Your task to perform on an android device: toggle sleep mode Image 0: 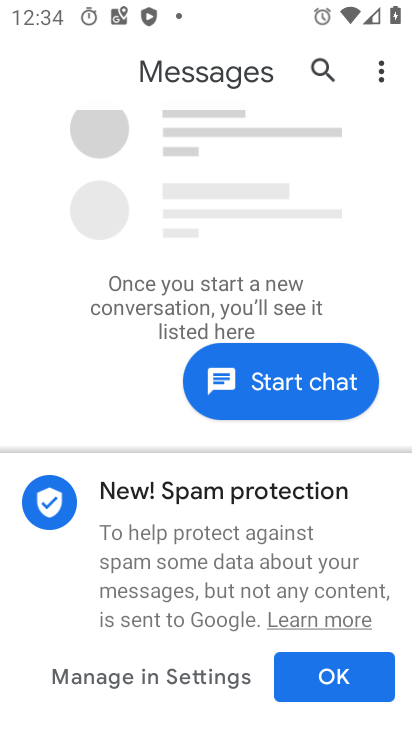
Step 0: press home button
Your task to perform on an android device: toggle sleep mode Image 1: 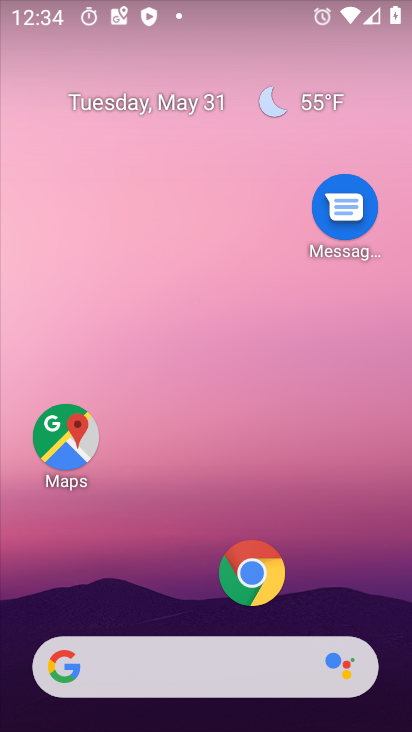
Step 1: drag from (179, 572) to (211, 20)
Your task to perform on an android device: toggle sleep mode Image 2: 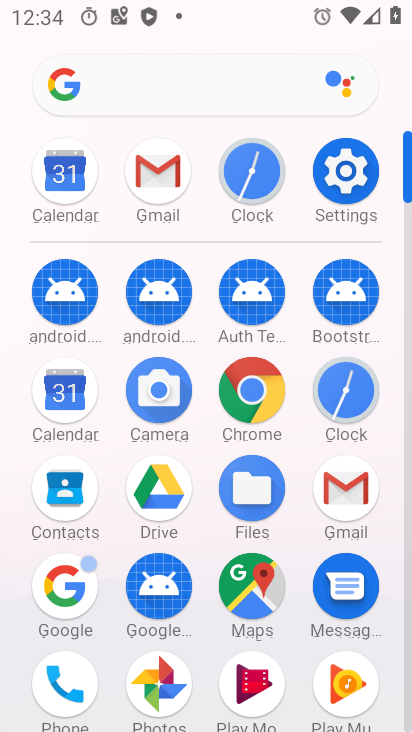
Step 2: click (346, 169)
Your task to perform on an android device: toggle sleep mode Image 3: 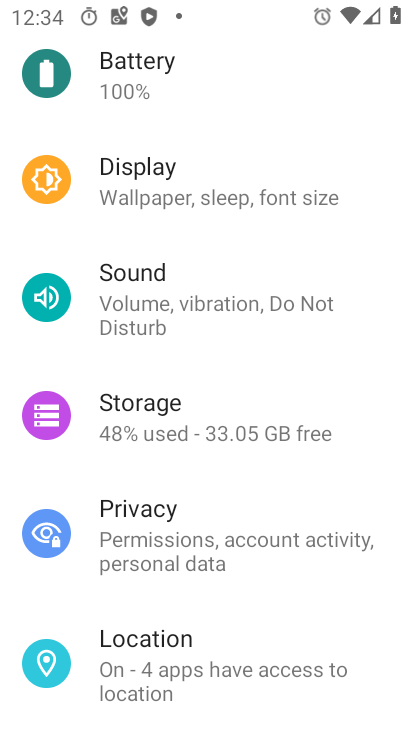
Step 3: drag from (199, 466) to (276, 168)
Your task to perform on an android device: toggle sleep mode Image 4: 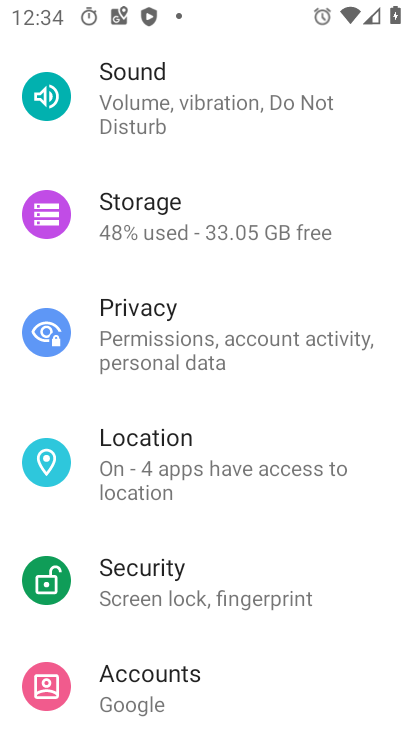
Step 4: drag from (289, 529) to (301, 160)
Your task to perform on an android device: toggle sleep mode Image 5: 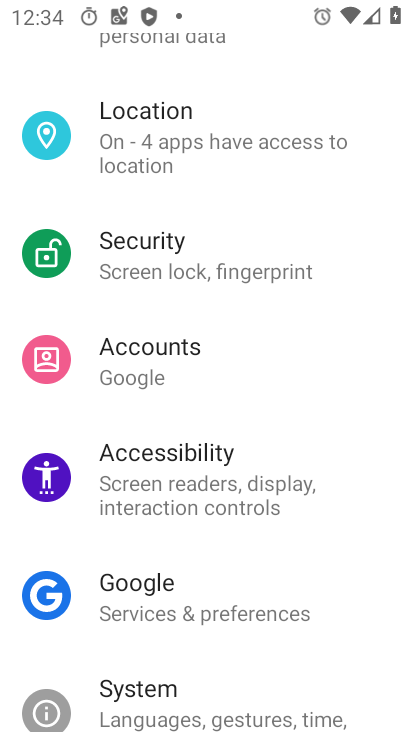
Step 5: drag from (261, 470) to (255, 151)
Your task to perform on an android device: toggle sleep mode Image 6: 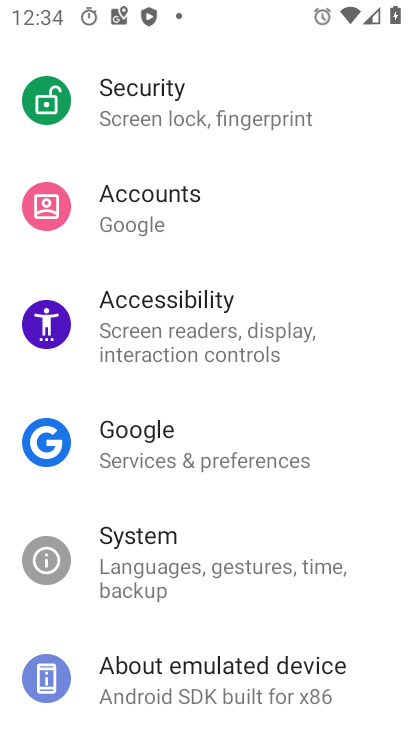
Step 6: drag from (215, 268) to (192, 637)
Your task to perform on an android device: toggle sleep mode Image 7: 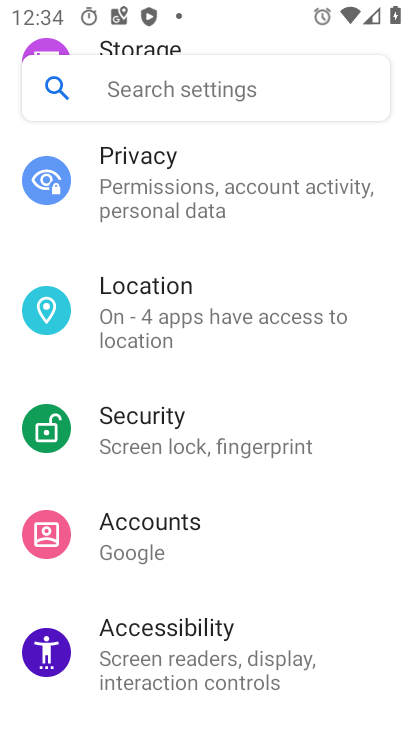
Step 7: drag from (249, 277) to (238, 599)
Your task to perform on an android device: toggle sleep mode Image 8: 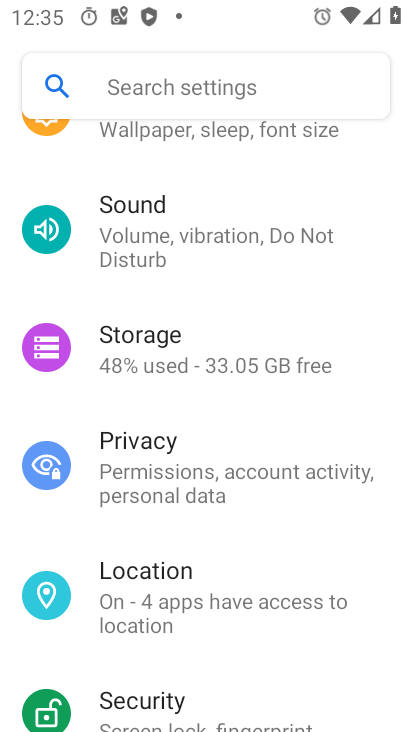
Step 8: drag from (205, 214) to (246, 478)
Your task to perform on an android device: toggle sleep mode Image 9: 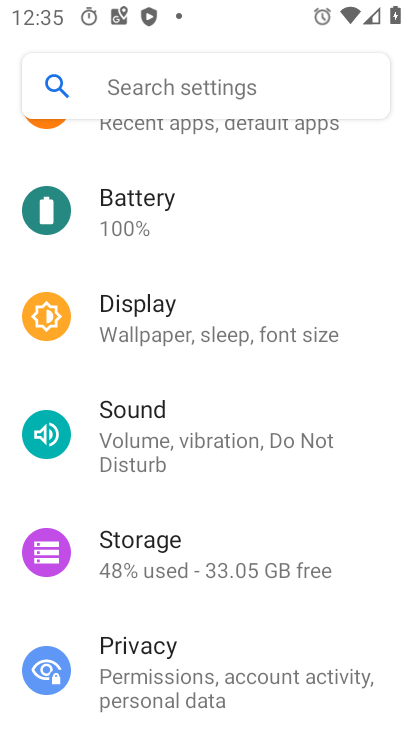
Step 9: click (248, 342)
Your task to perform on an android device: toggle sleep mode Image 10: 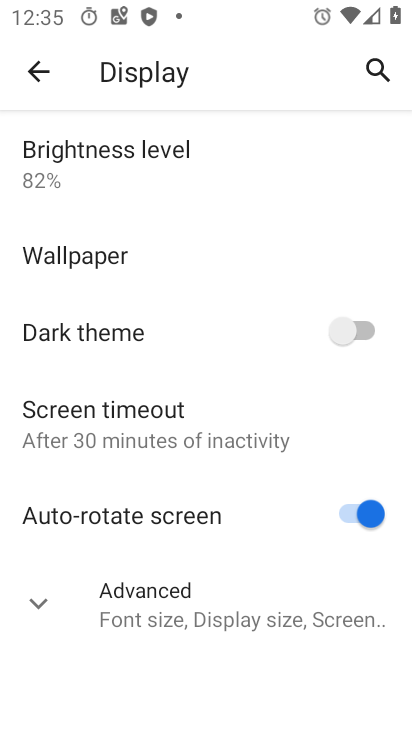
Step 10: click (214, 621)
Your task to perform on an android device: toggle sleep mode Image 11: 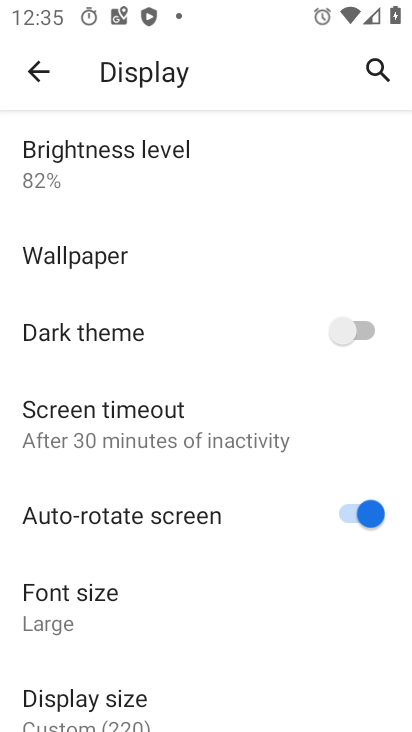
Step 11: task complete